Your task to perform on an android device: Open settings on Google Maps Image 0: 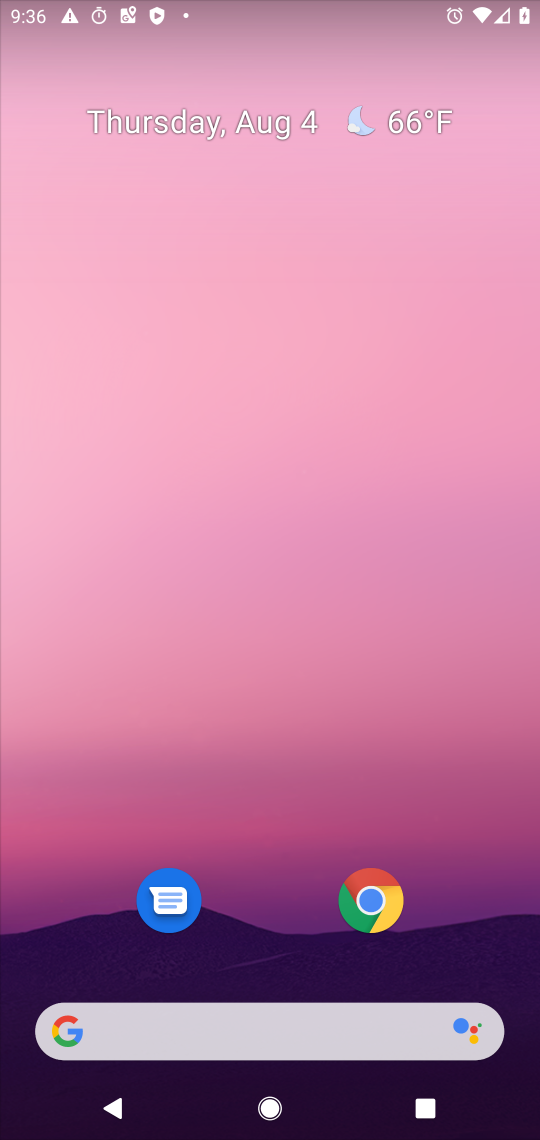
Step 0: drag from (251, 1033) to (376, 172)
Your task to perform on an android device: Open settings on Google Maps Image 1: 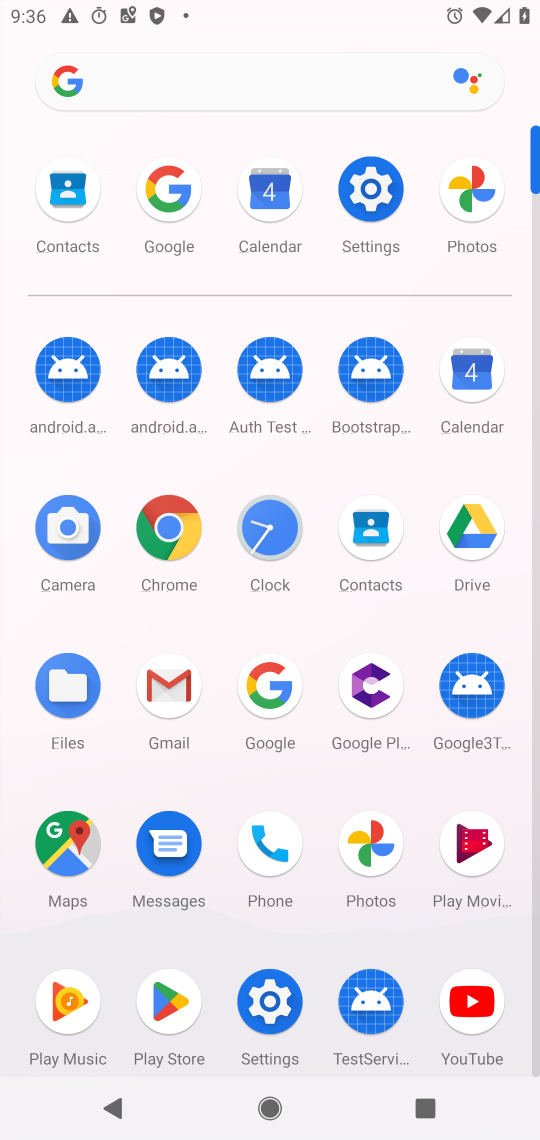
Step 1: click (68, 849)
Your task to perform on an android device: Open settings on Google Maps Image 2: 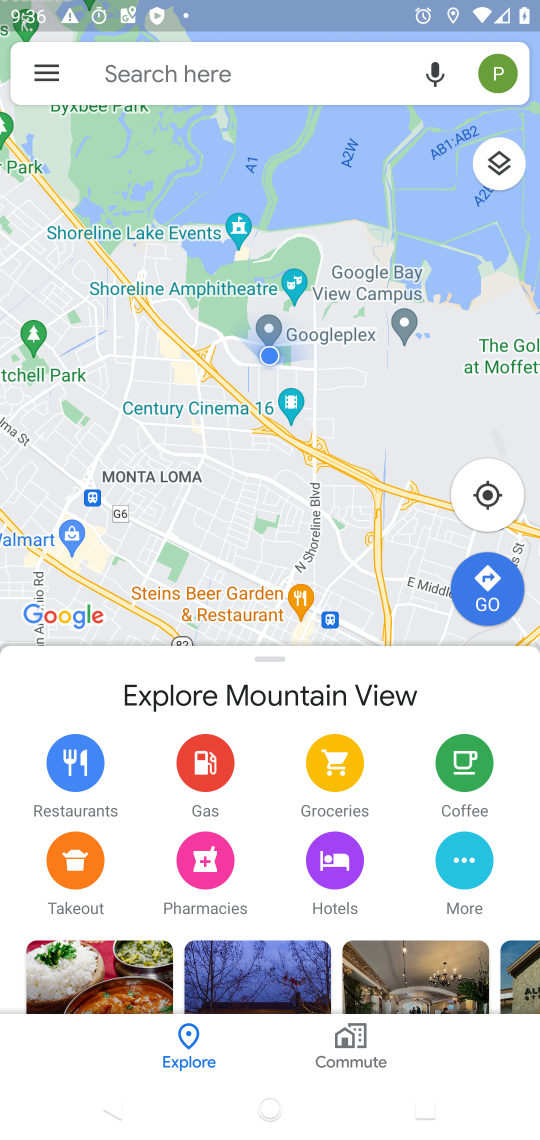
Step 2: click (42, 65)
Your task to perform on an android device: Open settings on Google Maps Image 3: 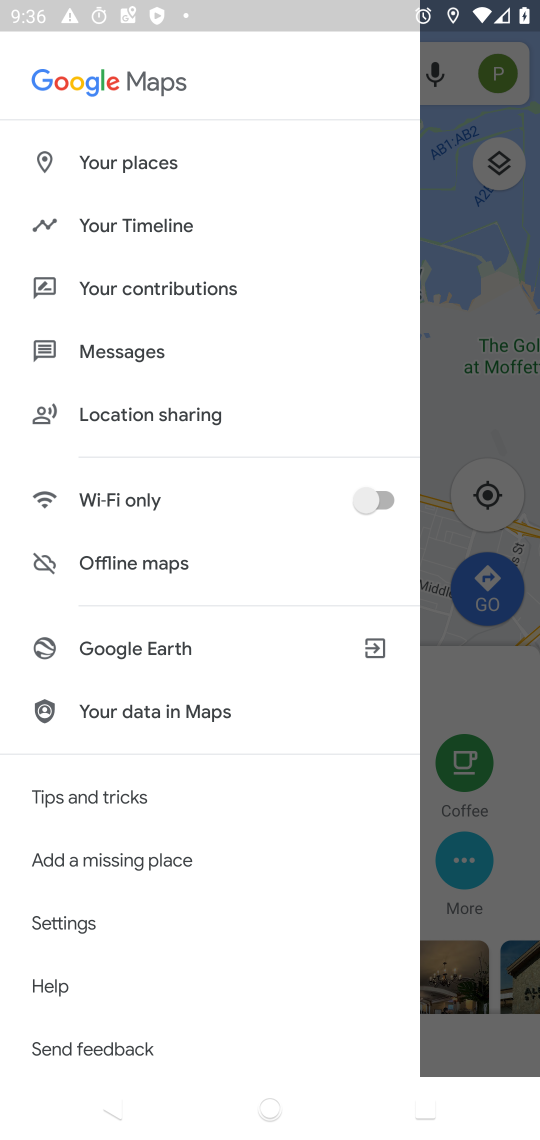
Step 3: click (98, 926)
Your task to perform on an android device: Open settings on Google Maps Image 4: 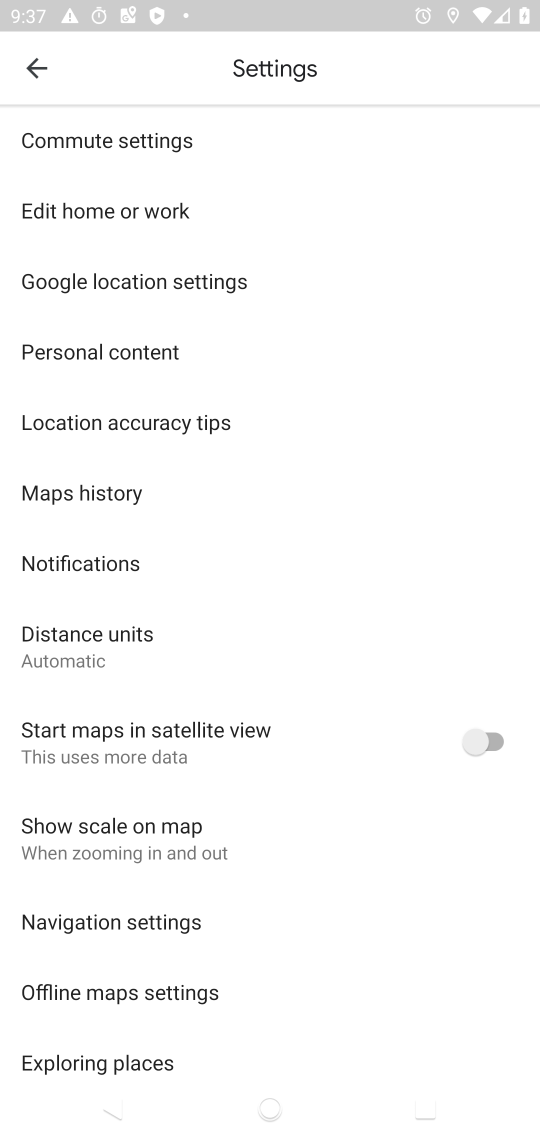
Step 4: task complete